Your task to perform on an android device: Turn off the flashlight Image 0: 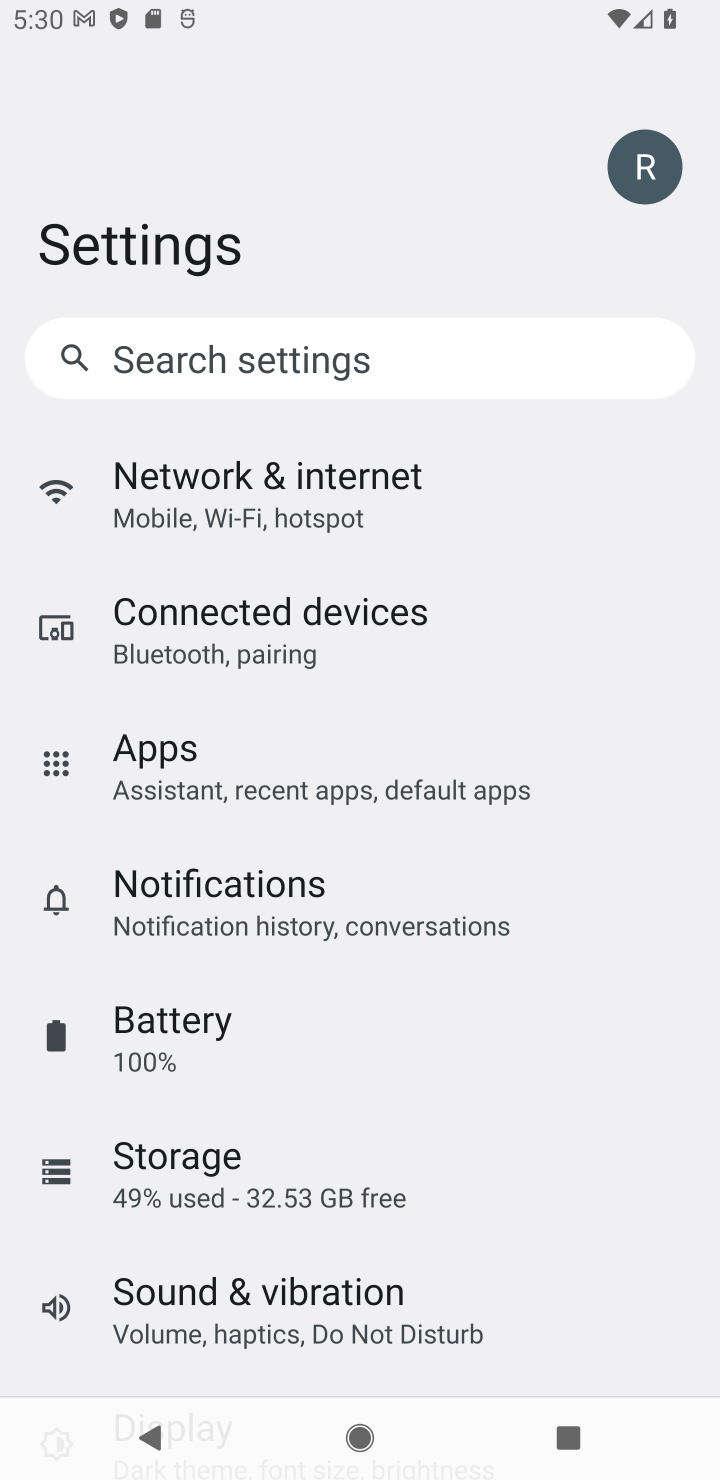
Step 0: click (327, 363)
Your task to perform on an android device: Turn off the flashlight Image 1: 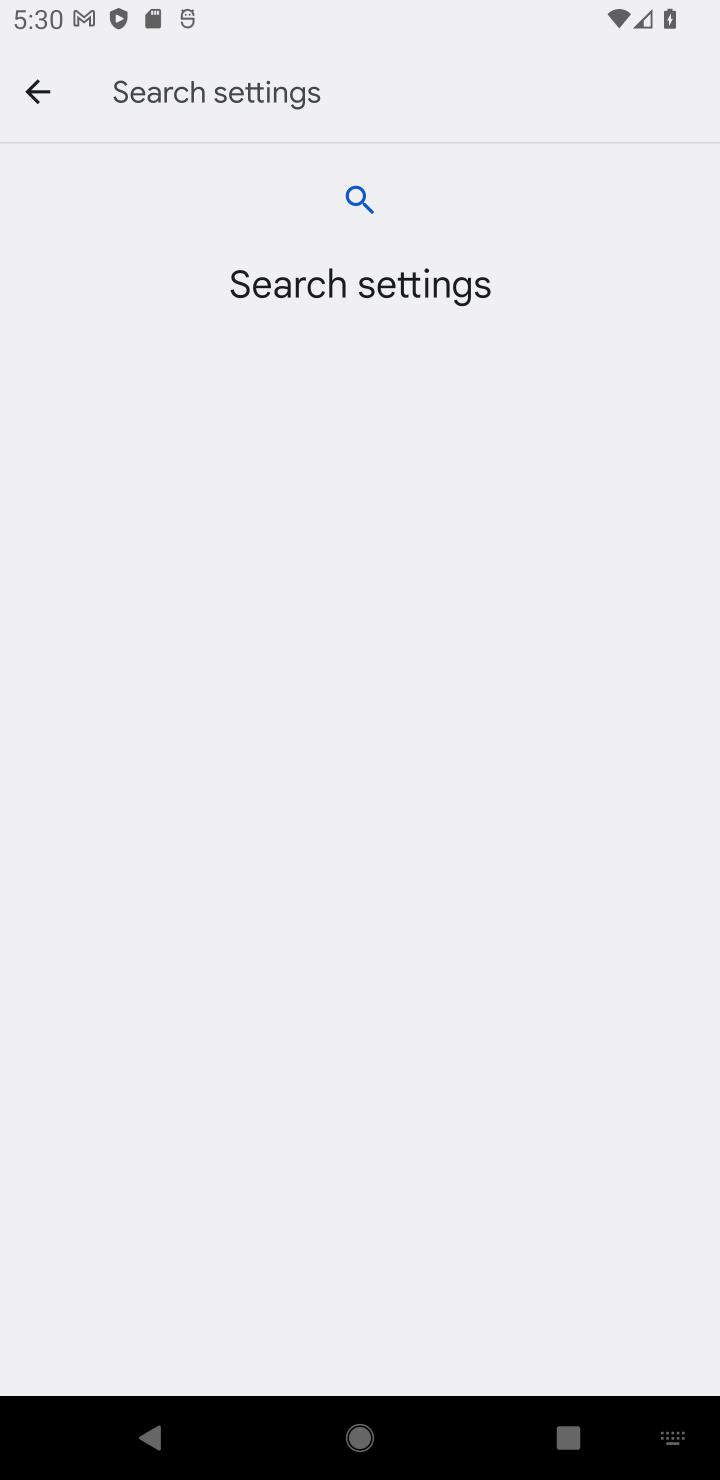
Step 1: type "flashlight"
Your task to perform on an android device: Turn off the flashlight Image 2: 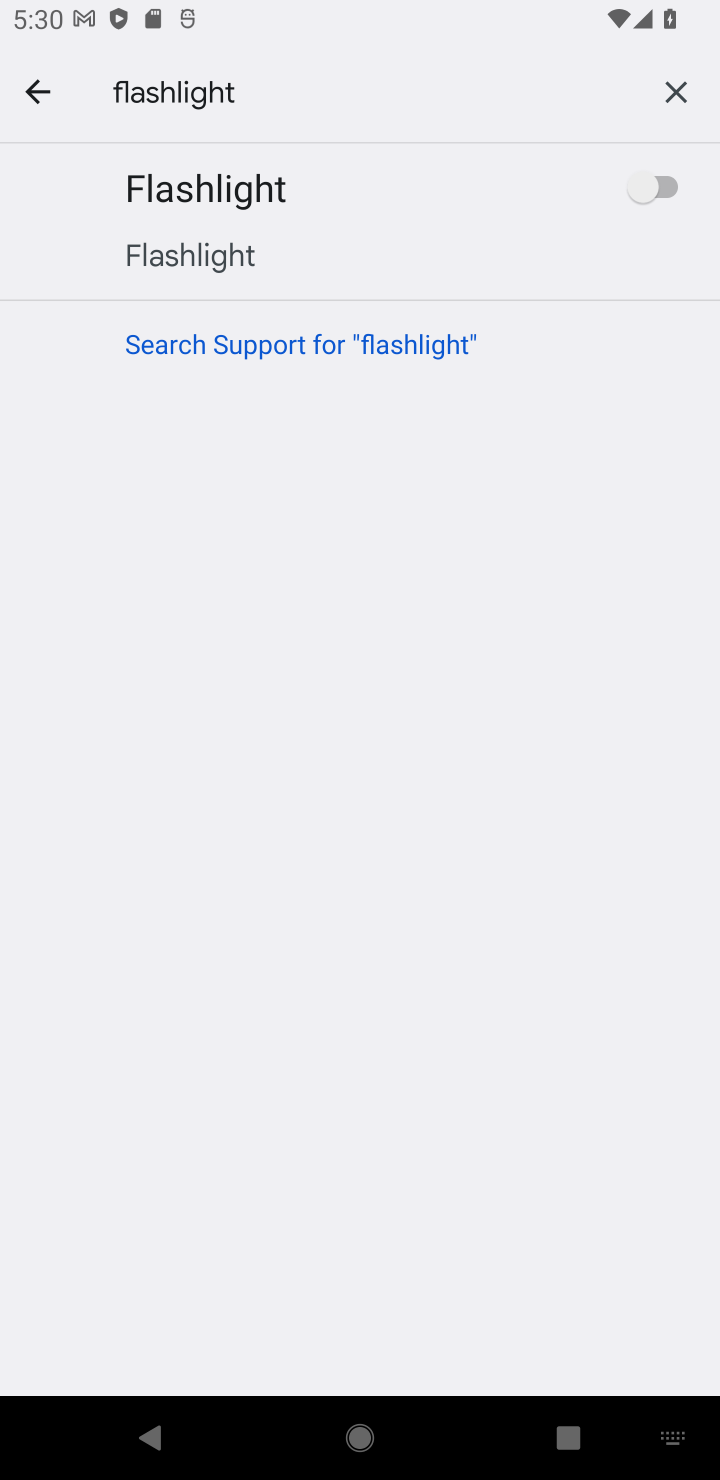
Step 2: task complete